Your task to perform on an android device: Search for vegetarian restaurants on Maps Image 0: 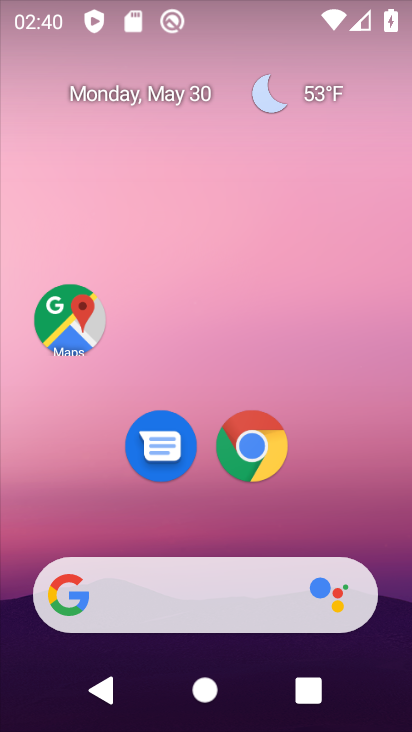
Step 0: click (65, 333)
Your task to perform on an android device: Search for vegetarian restaurants on Maps Image 1: 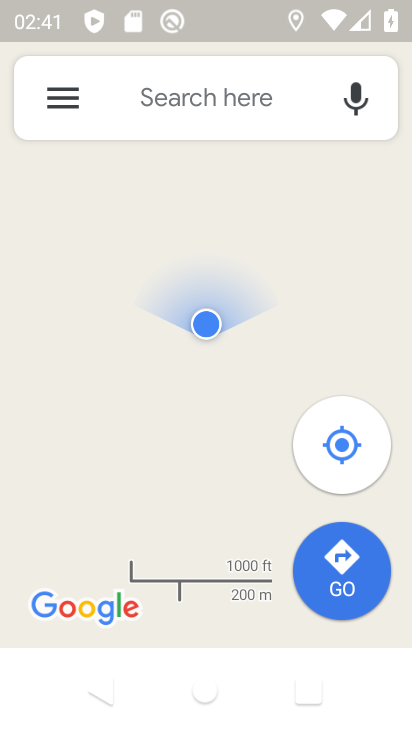
Step 1: click (223, 116)
Your task to perform on an android device: Search for vegetarian restaurants on Maps Image 2: 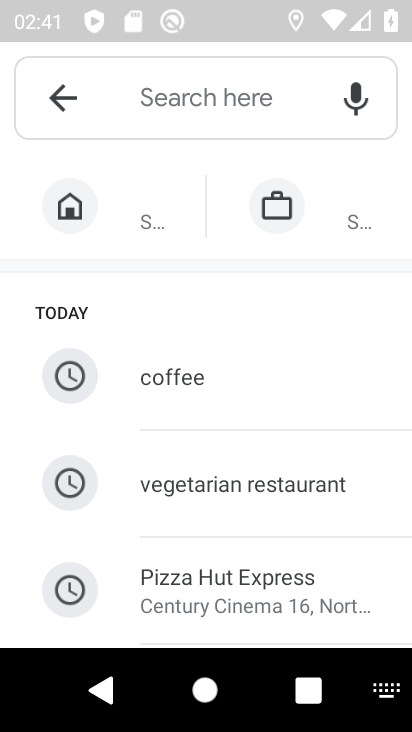
Step 2: type "vegetarian restaurants"
Your task to perform on an android device: Search for vegetarian restaurants on Maps Image 3: 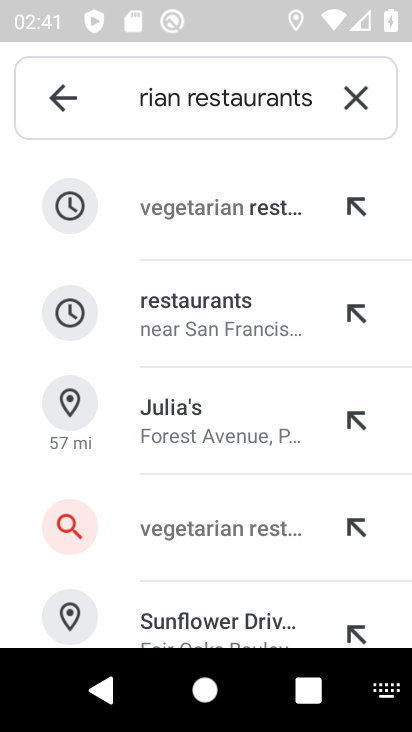
Step 3: click (191, 225)
Your task to perform on an android device: Search for vegetarian restaurants on Maps Image 4: 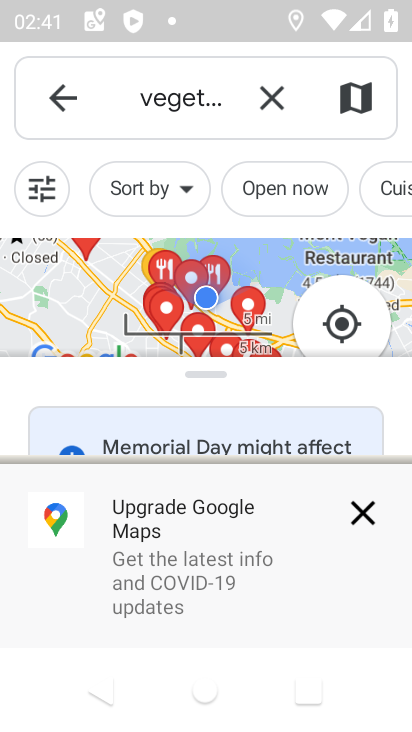
Step 4: click (358, 534)
Your task to perform on an android device: Search for vegetarian restaurants on Maps Image 5: 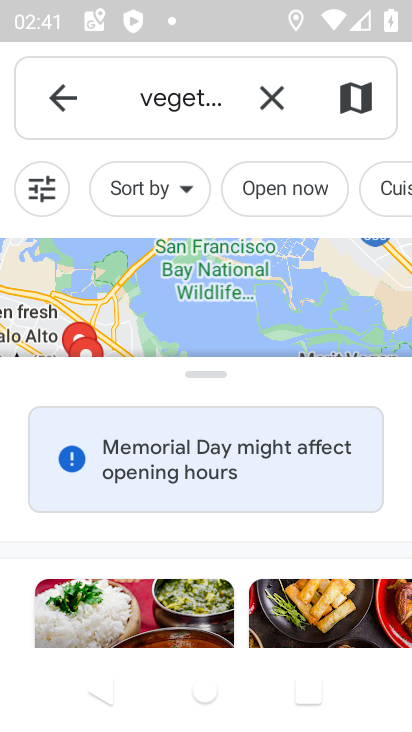
Step 5: task complete